Your task to perform on an android device: Open Android settings Image 0: 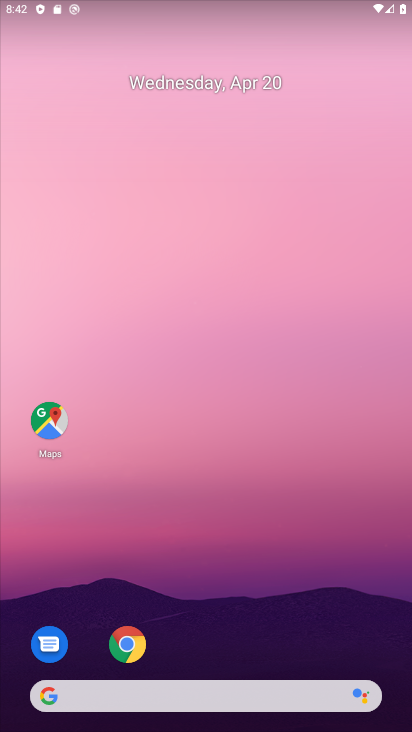
Step 0: drag from (331, 638) to (266, 24)
Your task to perform on an android device: Open Android settings Image 1: 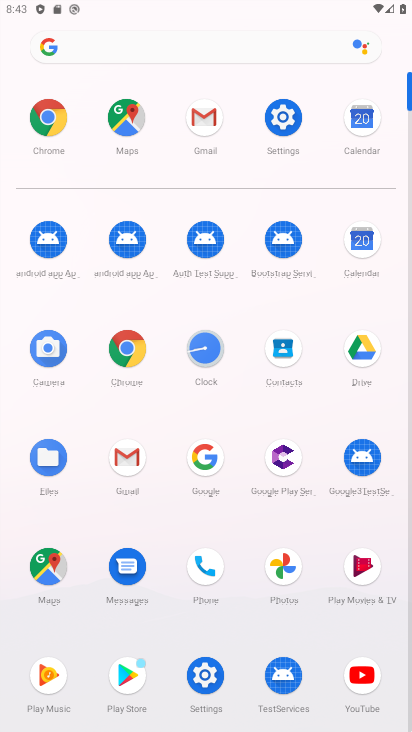
Step 1: click (209, 666)
Your task to perform on an android device: Open Android settings Image 2: 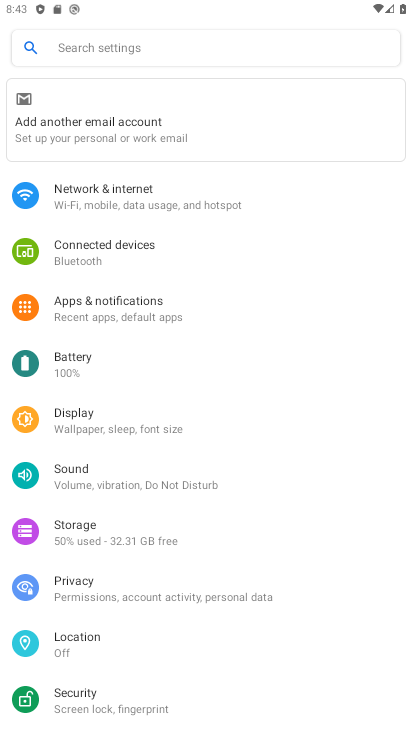
Step 2: drag from (209, 666) to (284, 212)
Your task to perform on an android device: Open Android settings Image 3: 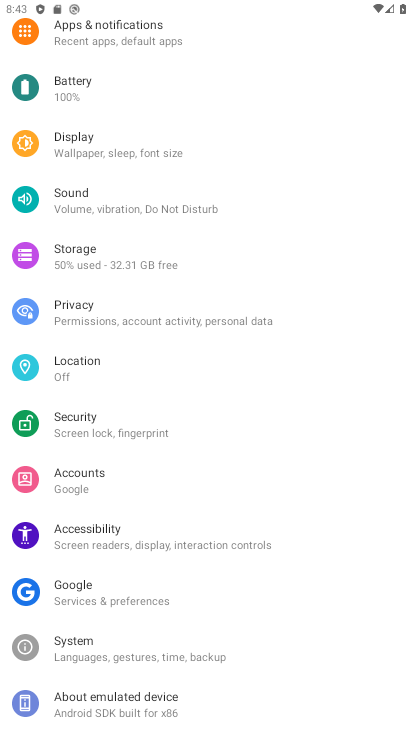
Step 3: click (220, 696)
Your task to perform on an android device: Open Android settings Image 4: 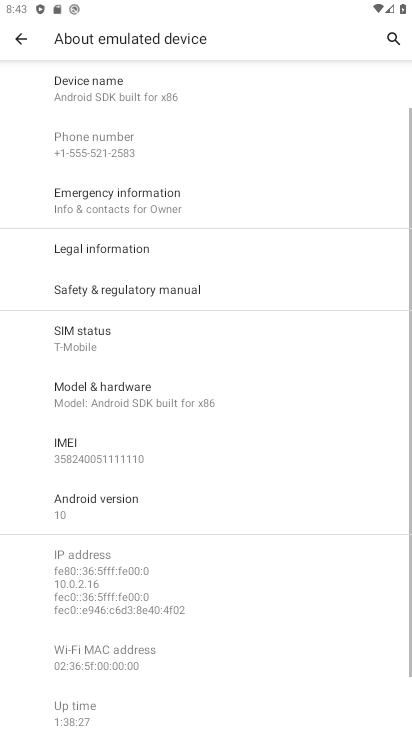
Step 4: click (143, 502)
Your task to perform on an android device: Open Android settings Image 5: 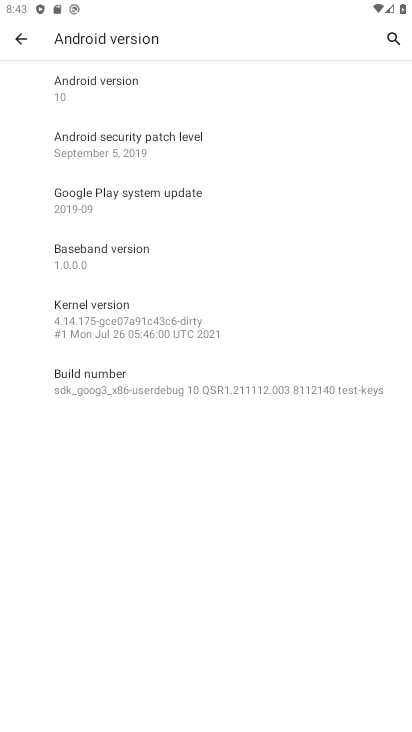
Step 5: task complete